Your task to perform on an android device: check data usage Image 0: 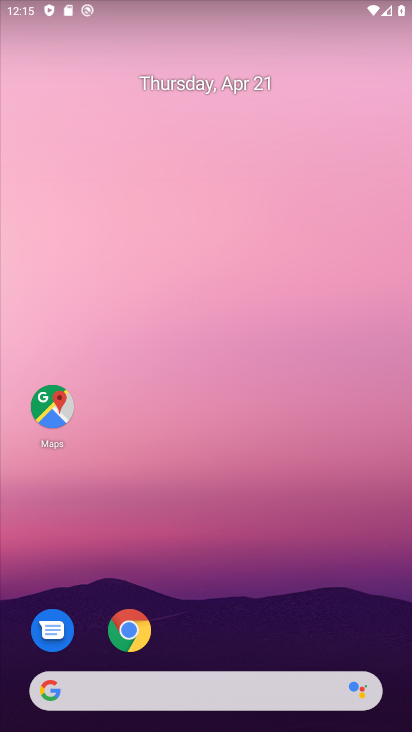
Step 0: drag from (225, 568) to (199, 10)
Your task to perform on an android device: check data usage Image 1: 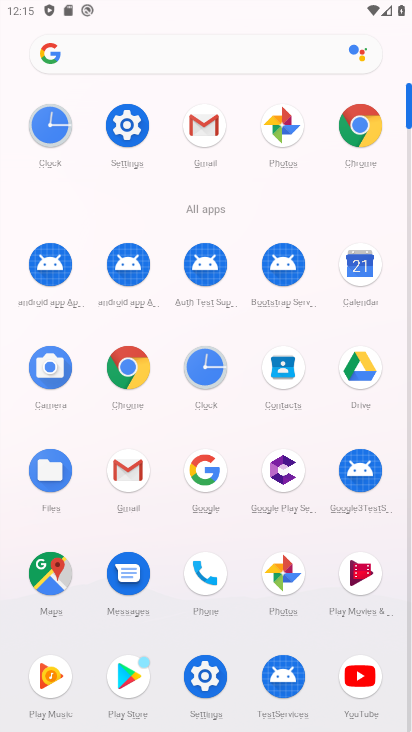
Step 1: click (120, 130)
Your task to perform on an android device: check data usage Image 2: 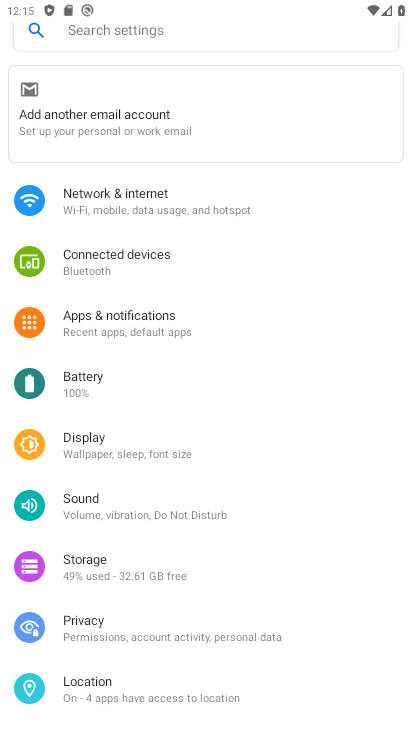
Step 2: click (120, 194)
Your task to perform on an android device: check data usage Image 3: 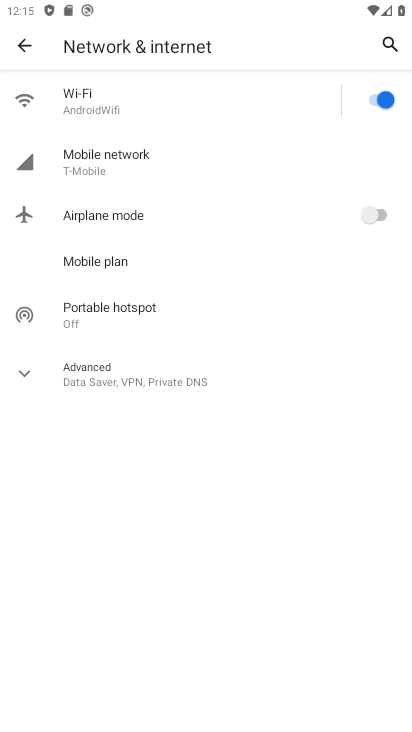
Step 3: click (102, 157)
Your task to perform on an android device: check data usage Image 4: 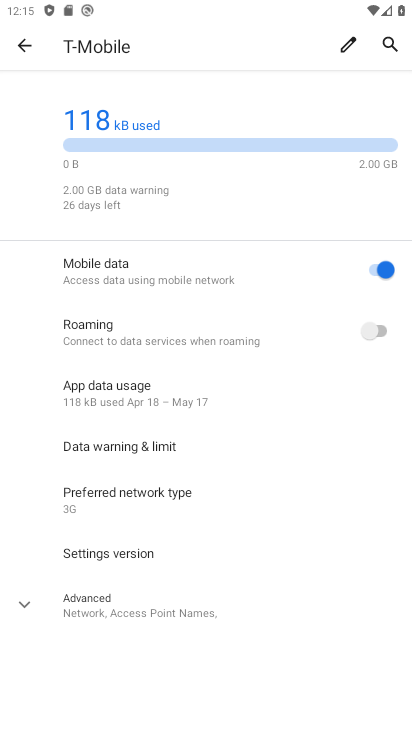
Step 4: task complete